Your task to perform on an android device: turn on notifications settings in the gmail app Image 0: 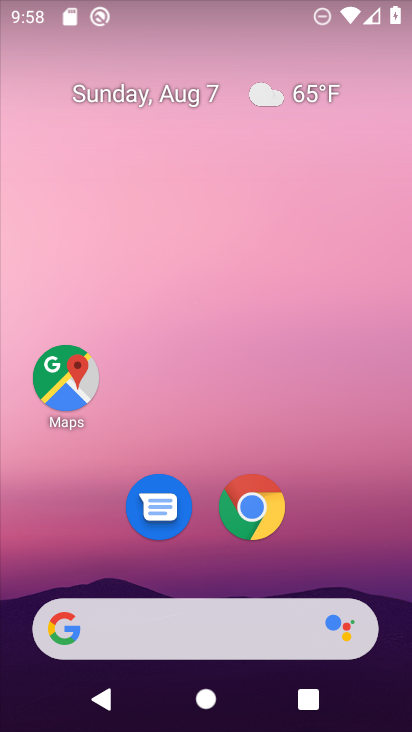
Step 0: drag from (318, 446) to (278, 72)
Your task to perform on an android device: turn on notifications settings in the gmail app Image 1: 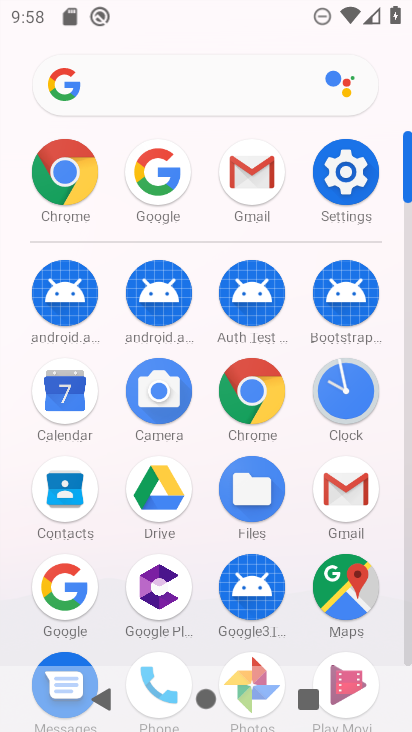
Step 1: click (351, 477)
Your task to perform on an android device: turn on notifications settings in the gmail app Image 2: 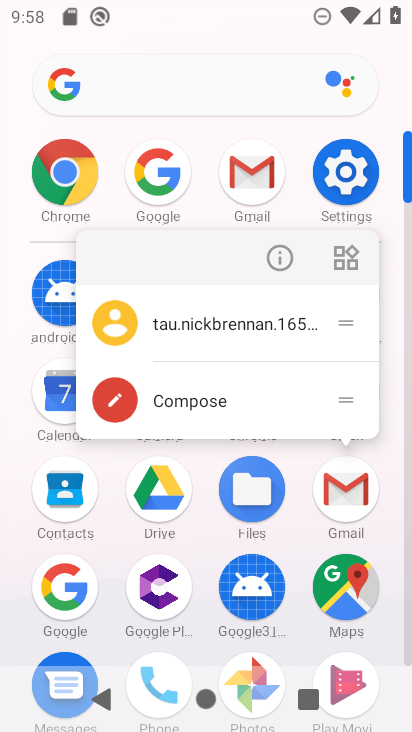
Step 2: click (339, 486)
Your task to perform on an android device: turn on notifications settings in the gmail app Image 3: 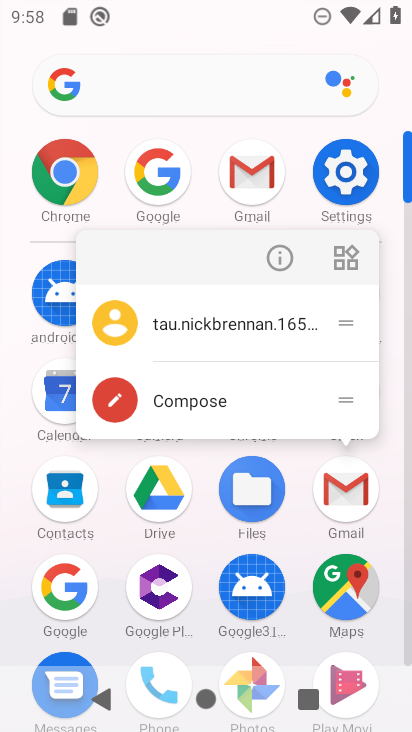
Step 3: click (351, 484)
Your task to perform on an android device: turn on notifications settings in the gmail app Image 4: 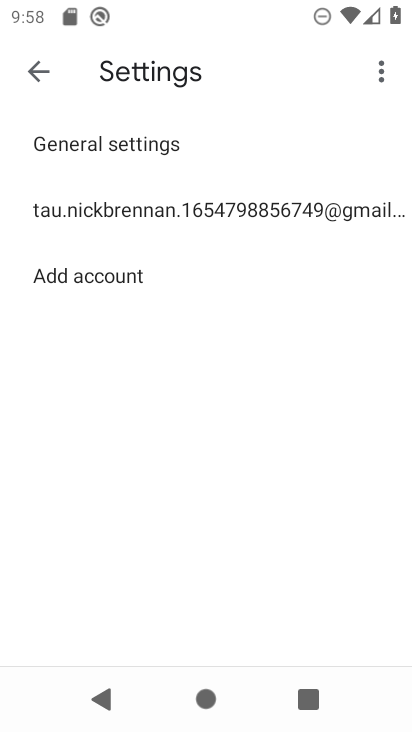
Step 4: click (160, 212)
Your task to perform on an android device: turn on notifications settings in the gmail app Image 5: 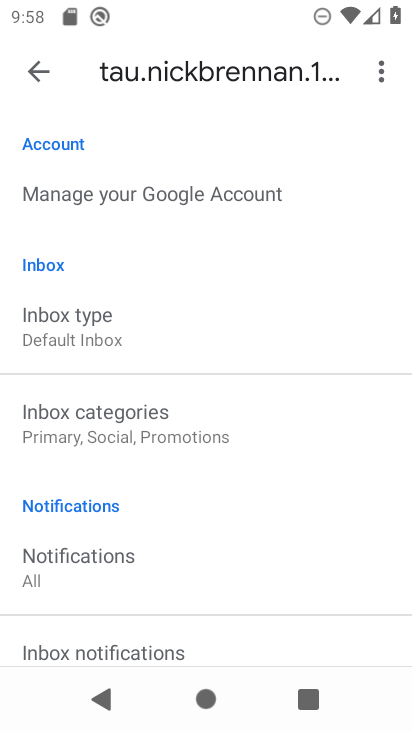
Step 5: drag from (301, 562) to (332, 174)
Your task to perform on an android device: turn on notifications settings in the gmail app Image 6: 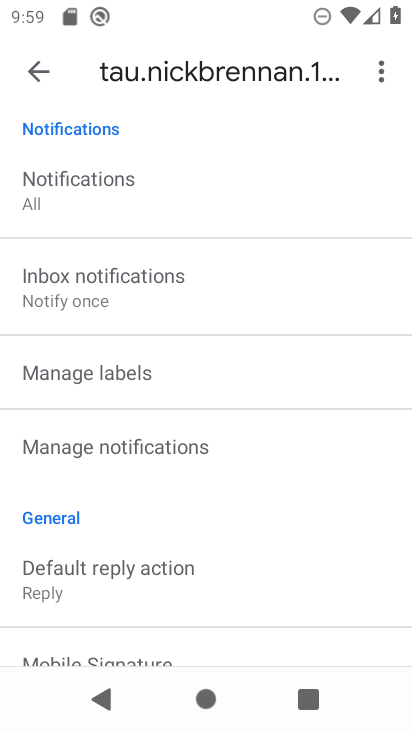
Step 6: click (149, 447)
Your task to perform on an android device: turn on notifications settings in the gmail app Image 7: 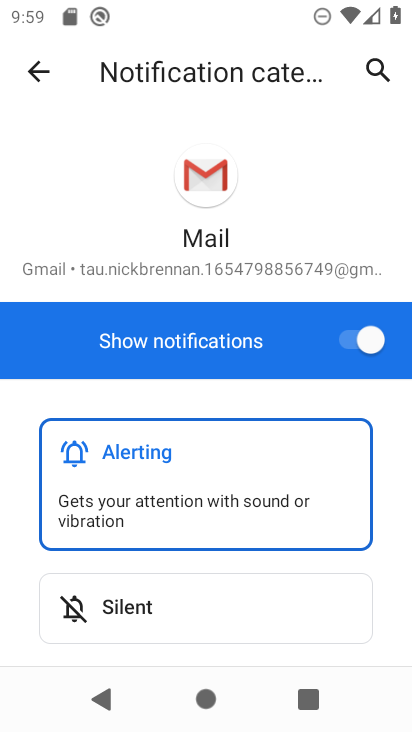
Step 7: task complete